Your task to perform on an android device: See recent photos Image 0: 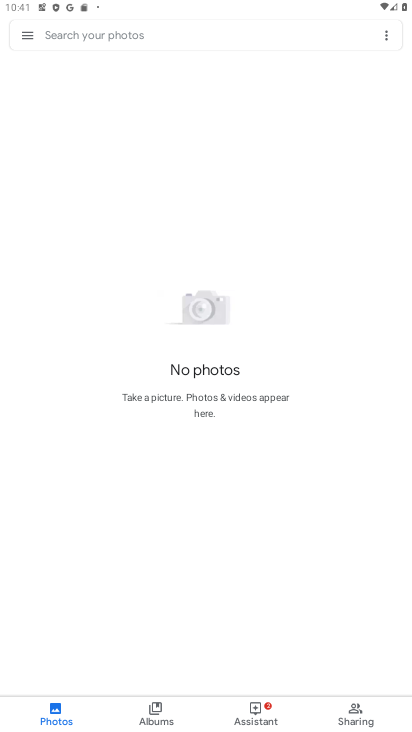
Step 0: task complete